Your task to perform on an android device: Go to Wikipedia Image 0: 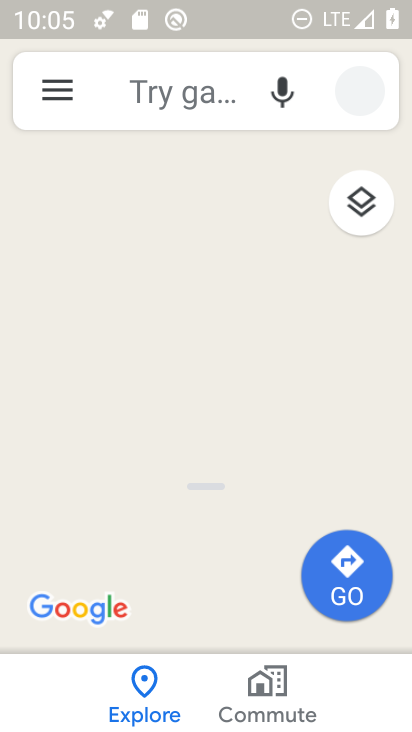
Step 0: press home button
Your task to perform on an android device: Go to Wikipedia Image 1: 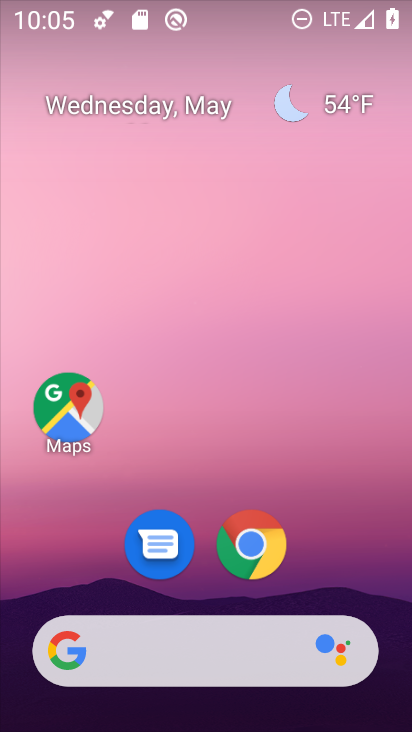
Step 1: click (251, 565)
Your task to perform on an android device: Go to Wikipedia Image 2: 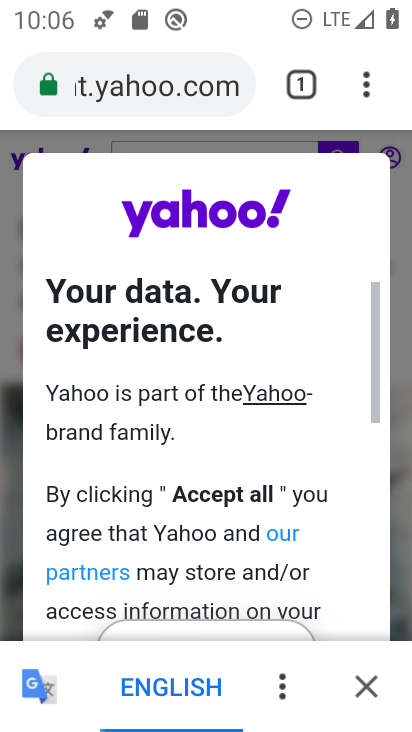
Step 2: click (348, 97)
Your task to perform on an android device: Go to Wikipedia Image 3: 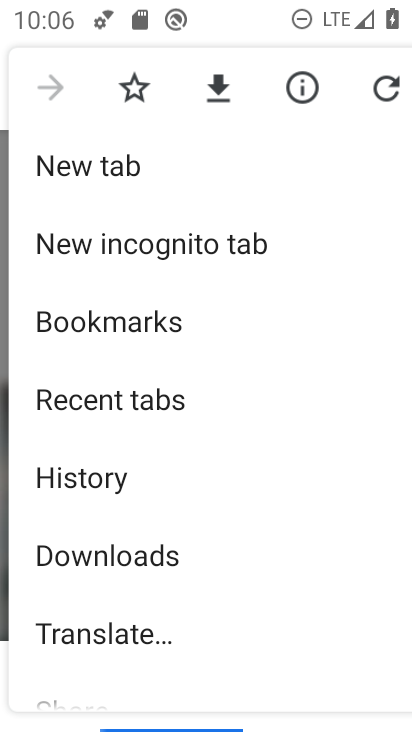
Step 3: click (209, 145)
Your task to perform on an android device: Go to Wikipedia Image 4: 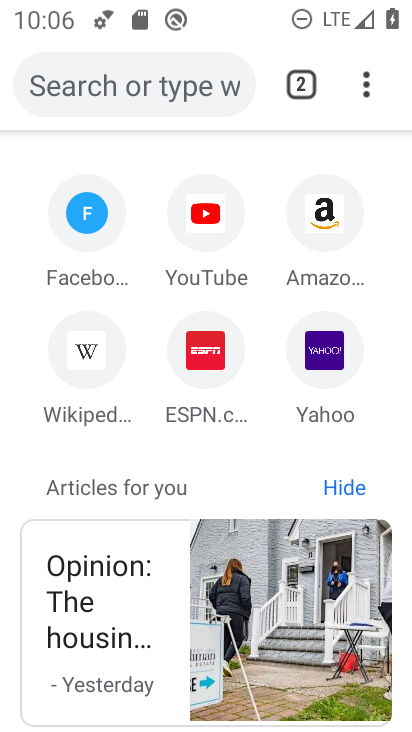
Step 4: click (109, 358)
Your task to perform on an android device: Go to Wikipedia Image 5: 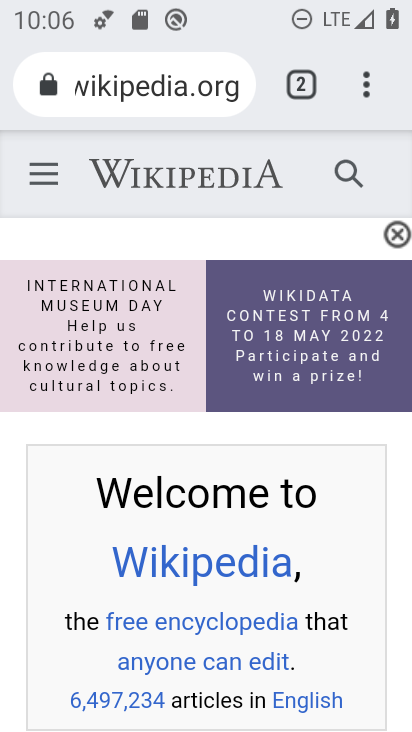
Step 5: task complete